Your task to perform on an android device: change your default location settings in chrome Image 0: 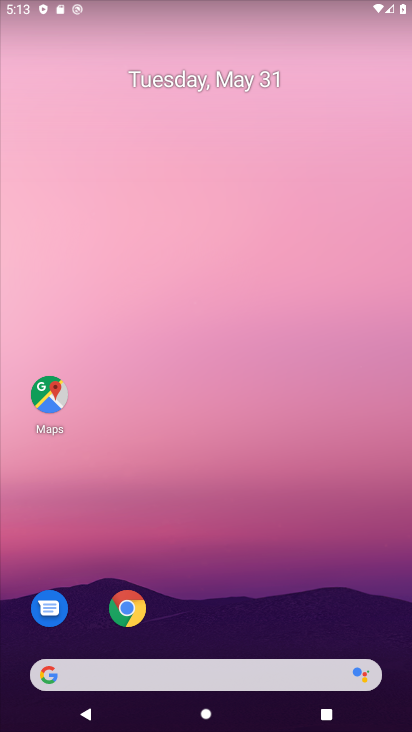
Step 0: click (125, 610)
Your task to perform on an android device: change your default location settings in chrome Image 1: 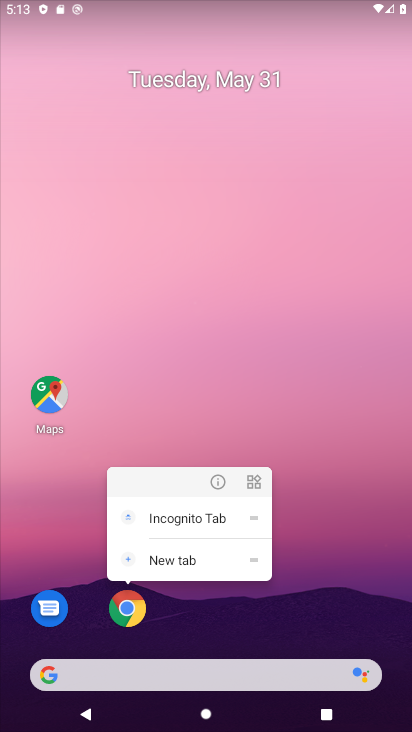
Step 1: click (136, 614)
Your task to perform on an android device: change your default location settings in chrome Image 2: 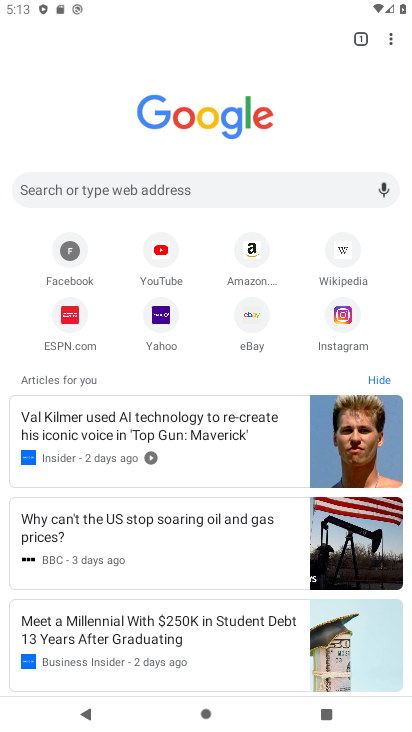
Step 2: click (387, 36)
Your task to perform on an android device: change your default location settings in chrome Image 3: 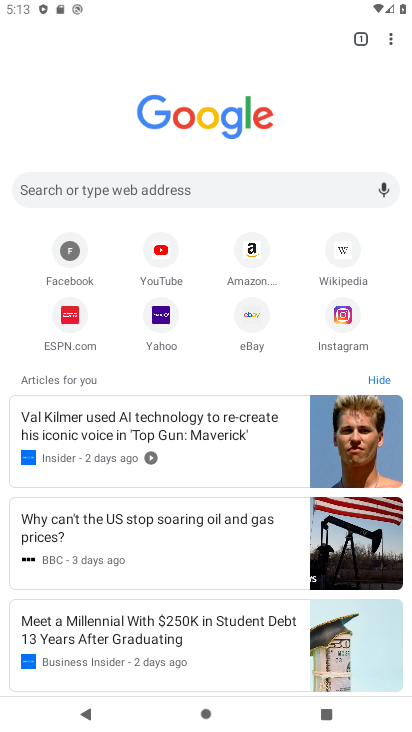
Step 3: click (402, 35)
Your task to perform on an android device: change your default location settings in chrome Image 4: 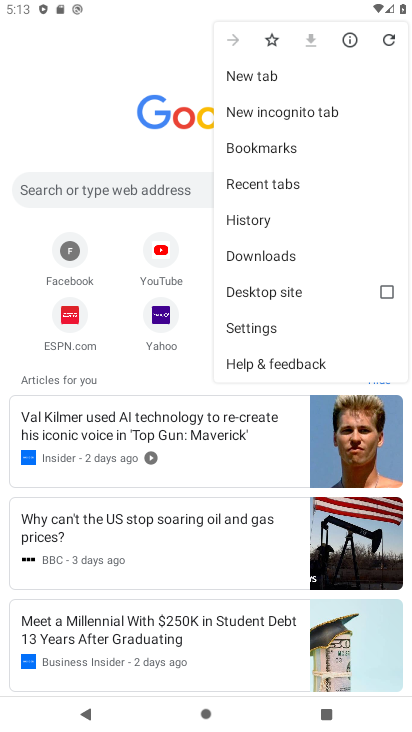
Step 4: click (259, 337)
Your task to perform on an android device: change your default location settings in chrome Image 5: 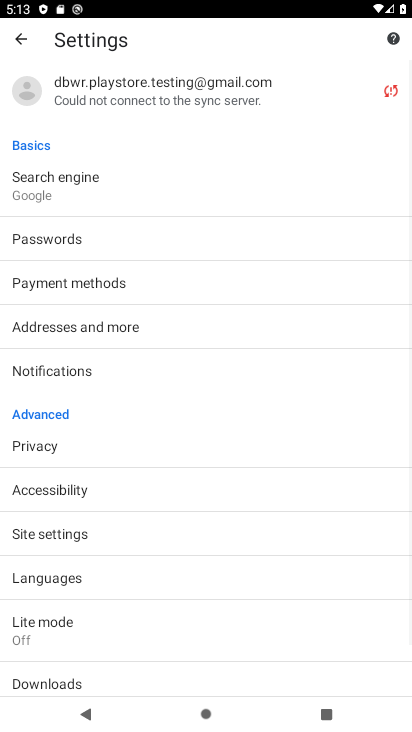
Step 5: click (70, 179)
Your task to perform on an android device: change your default location settings in chrome Image 6: 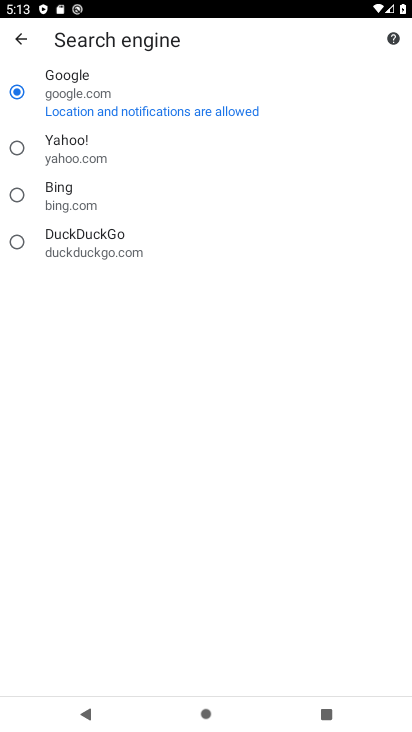
Step 6: task complete